Your task to perform on an android device: Do I have any events this weekend? Image 0: 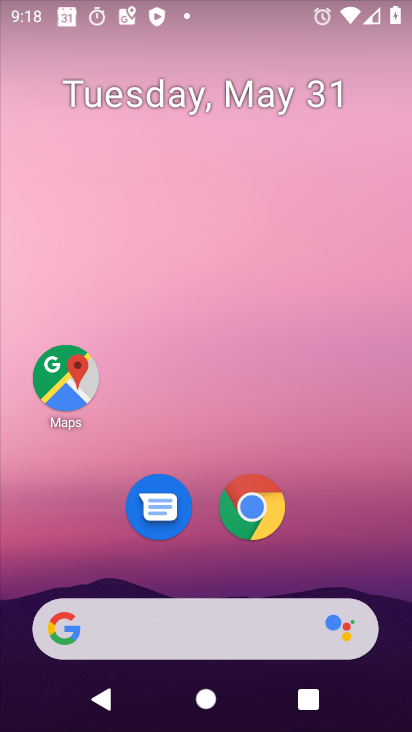
Step 0: drag from (351, 587) to (340, 16)
Your task to perform on an android device: Do I have any events this weekend? Image 1: 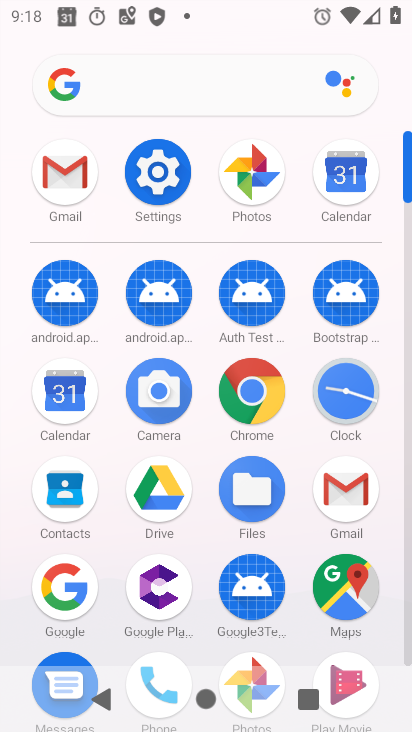
Step 1: click (344, 177)
Your task to perform on an android device: Do I have any events this weekend? Image 2: 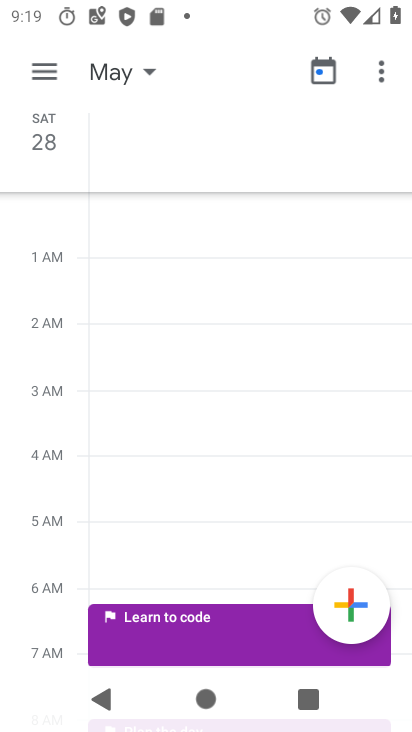
Step 2: click (157, 72)
Your task to perform on an android device: Do I have any events this weekend? Image 3: 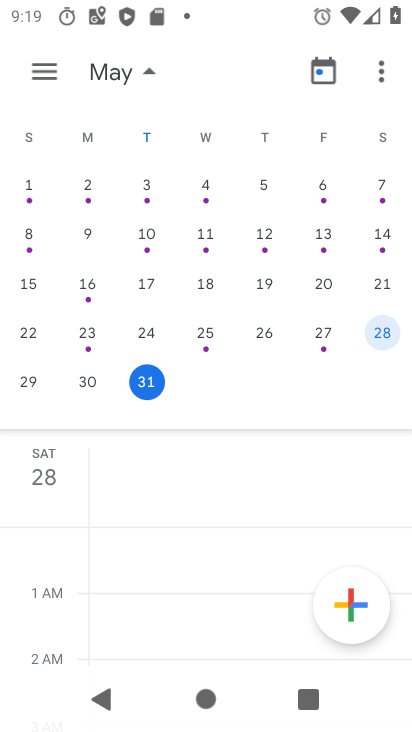
Step 3: drag from (243, 290) to (26, 245)
Your task to perform on an android device: Do I have any events this weekend? Image 4: 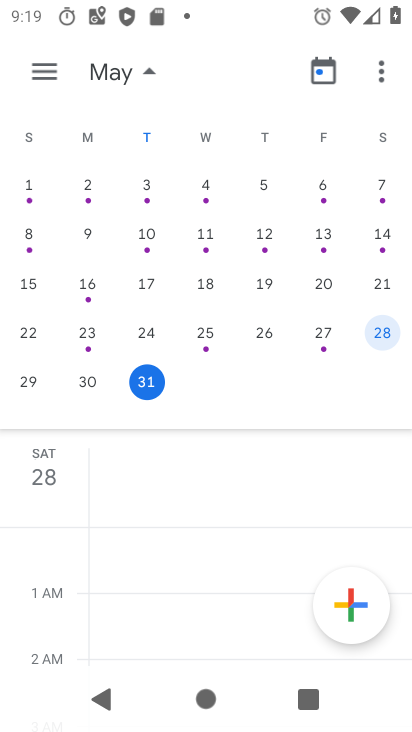
Step 4: drag from (316, 273) to (21, 297)
Your task to perform on an android device: Do I have any events this weekend? Image 5: 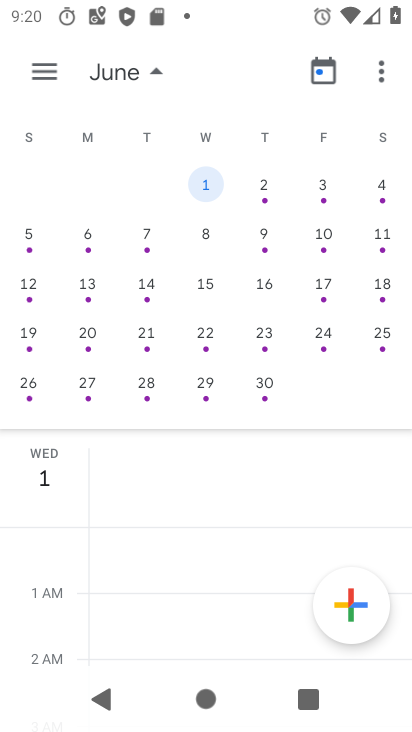
Step 5: click (385, 188)
Your task to perform on an android device: Do I have any events this weekend? Image 6: 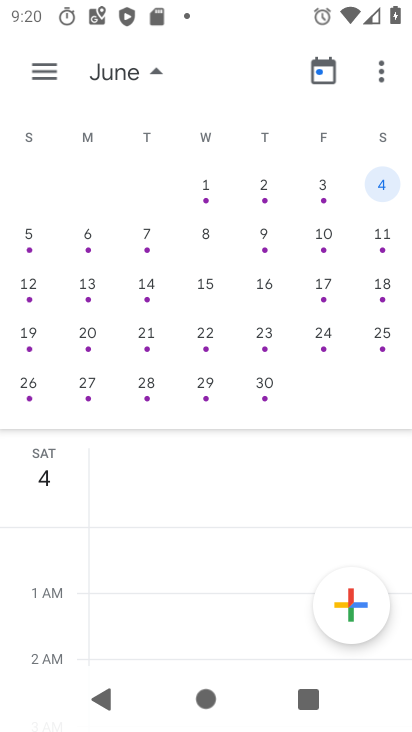
Step 6: click (42, 73)
Your task to perform on an android device: Do I have any events this weekend? Image 7: 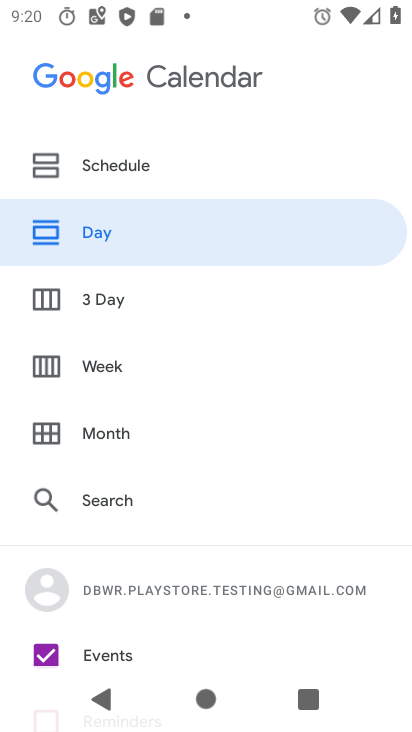
Step 7: click (75, 238)
Your task to perform on an android device: Do I have any events this weekend? Image 8: 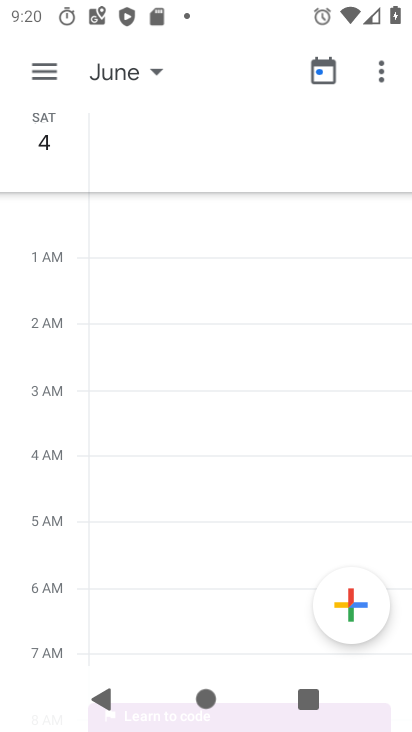
Step 8: task complete